Your task to perform on an android device: set default search engine in the chrome app Image 0: 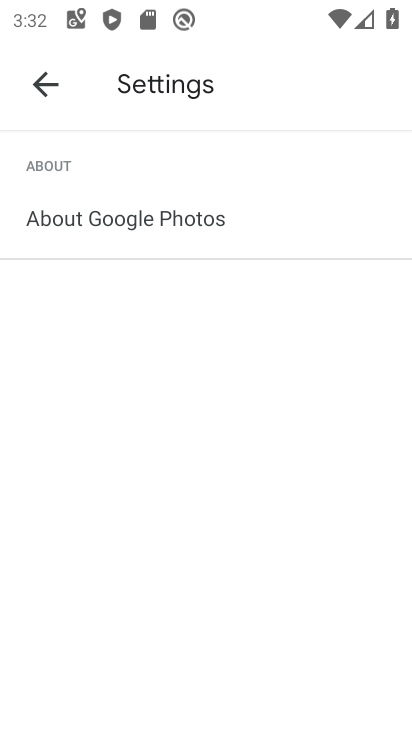
Step 0: press home button
Your task to perform on an android device: set default search engine in the chrome app Image 1: 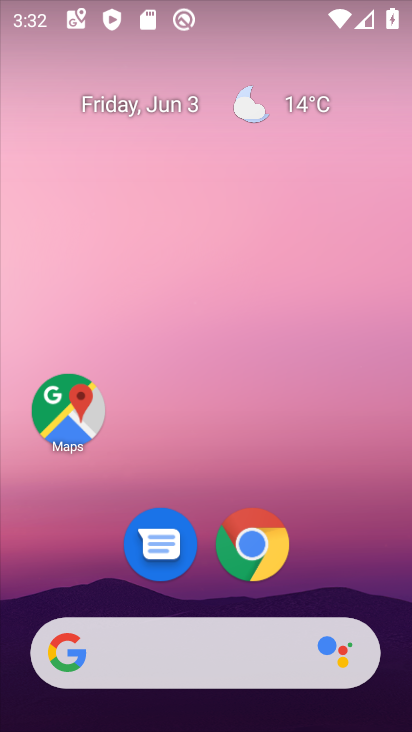
Step 1: click (251, 541)
Your task to perform on an android device: set default search engine in the chrome app Image 2: 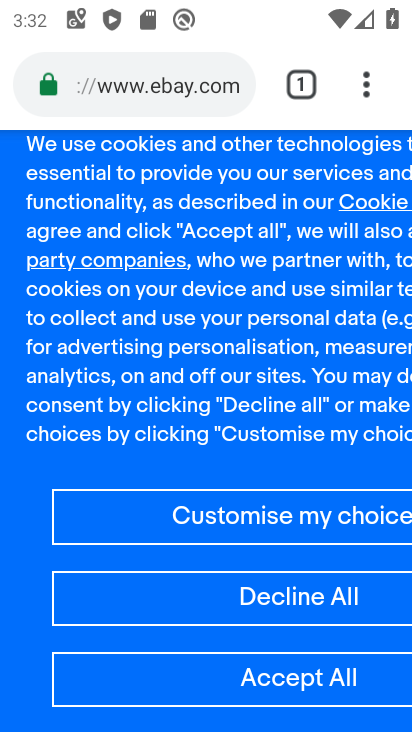
Step 2: click (364, 92)
Your task to perform on an android device: set default search engine in the chrome app Image 3: 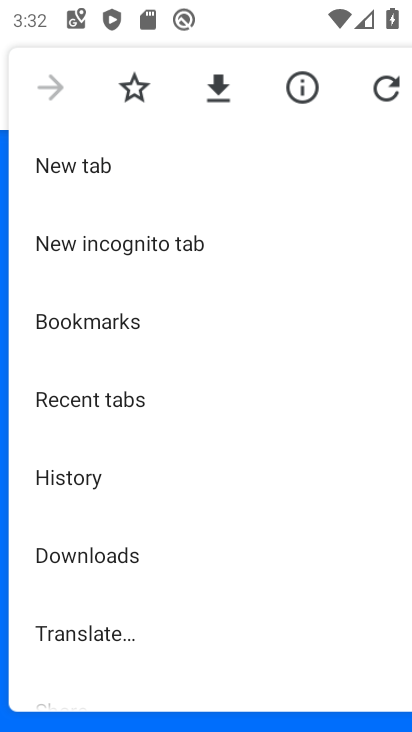
Step 3: drag from (136, 566) to (217, 208)
Your task to perform on an android device: set default search engine in the chrome app Image 4: 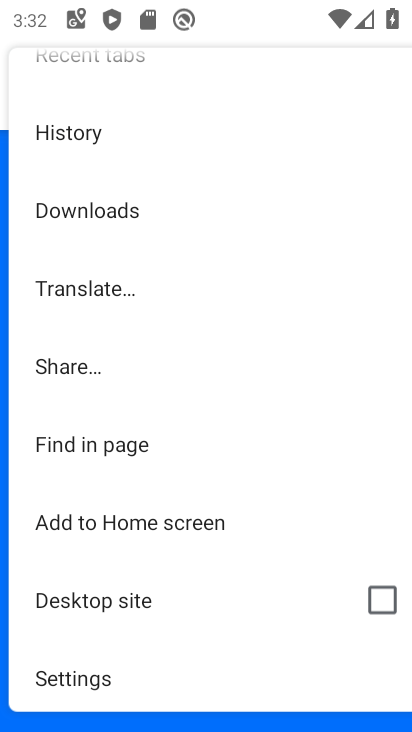
Step 4: click (87, 681)
Your task to perform on an android device: set default search engine in the chrome app Image 5: 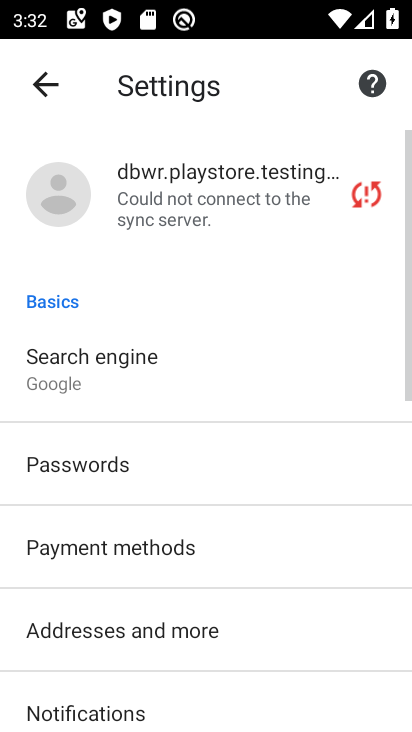
Step 5: click (70, 382)
Your task to perform on an android device: set default search engine in the chrome app Image 6: 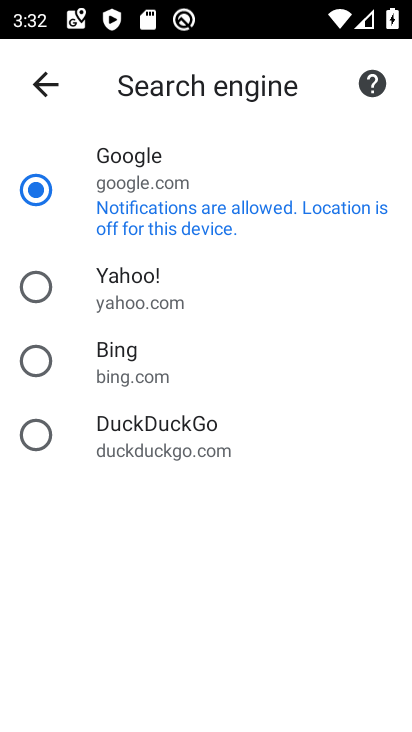
Step 6: click (43, 290)
Your task to perform on an android device: set default search engine in the chrome app Image 7: 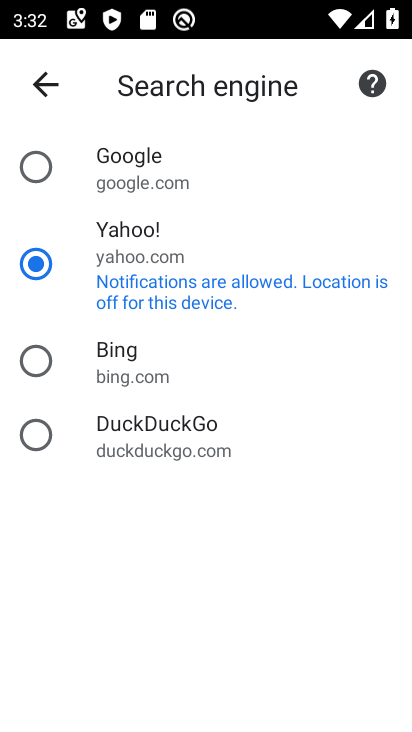
Step 7: task complete